Your task to perform on an android device: remove spam from my inbox in the gmail app Image 0: 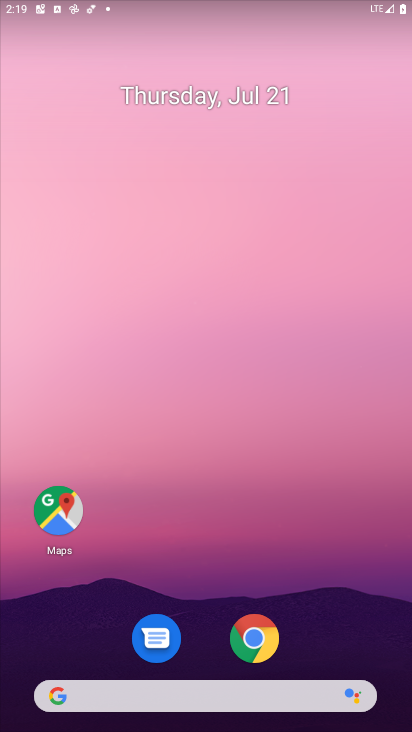
Step 0: drag from (172, 714) to (206, 36)
Your task to perform on an android device: remove spam from my inbox in the gmail app Image 1: 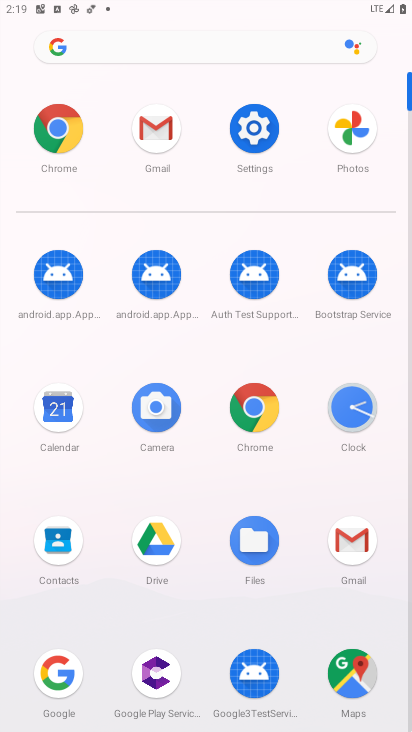
Step 1: click (359, 563)
Your task to perform on an android device: remove spam from my inbox in the gmail app Image 2: 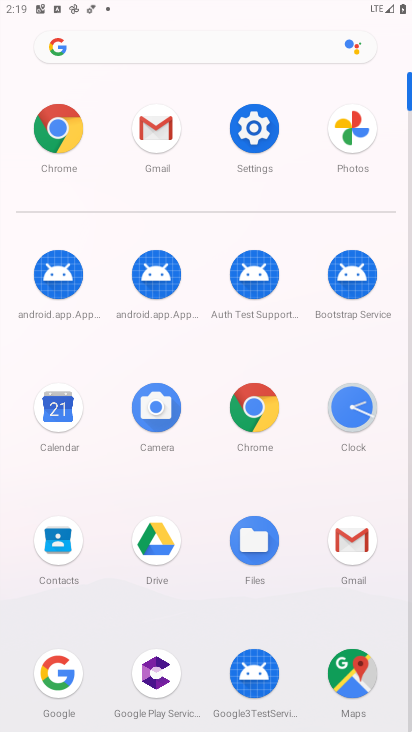
Step 2: click (359, 563)
Your task to perform on an android device: remove spam from my inbox in the gmail app Image 3: 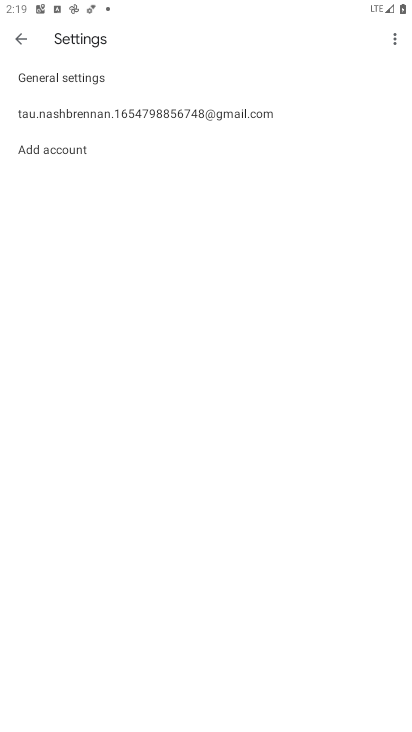
Step 3: click (21, 30)
Your task to perform on an android device: remove spam from my inbox in the gmail app Image 4: 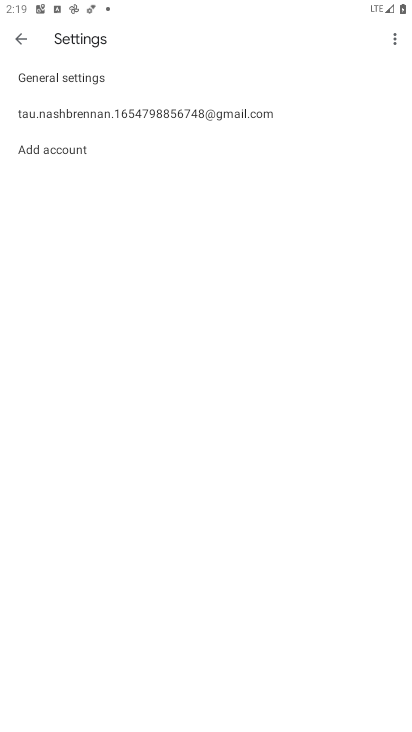
Step 4: click (20, 31)
Your task to perform on an android device: remove spam from my inbox in the gmail app Image 5: 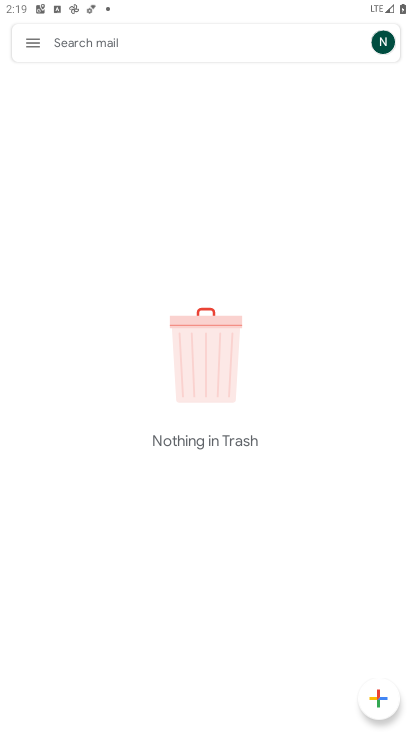
Step 5: click (29, 45)
Your task to perform on an android device: remove spam from my inbox in the gmail app Image 6: 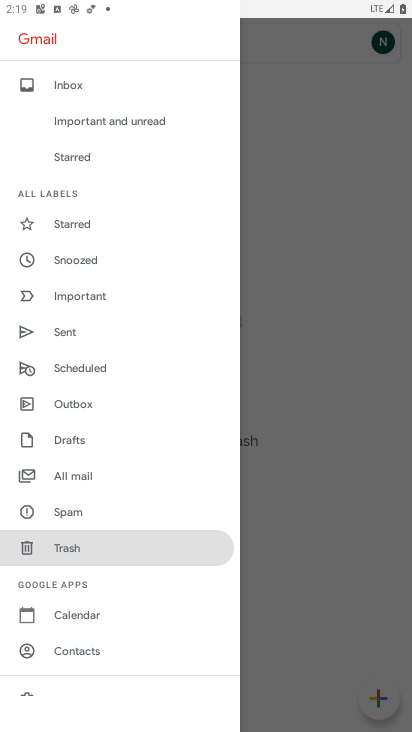
Step 6: click (60, 513)
Your task to perform on an android device: remove spam from my inbox in the gmail app Image 7: 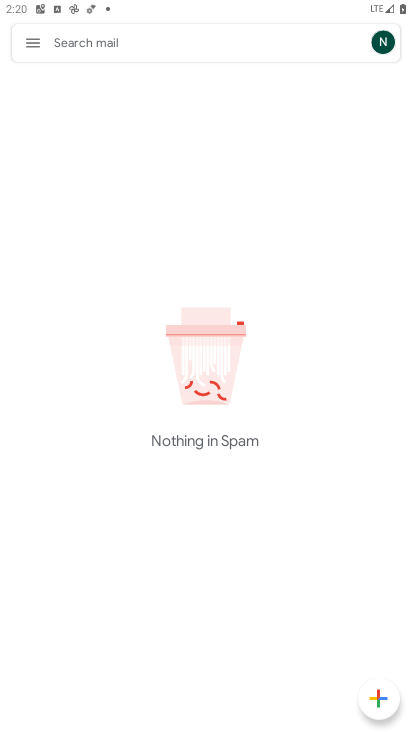
Step 7: task complete